Your task to perform on an android device: Do I have any events this weekend? Image 0: 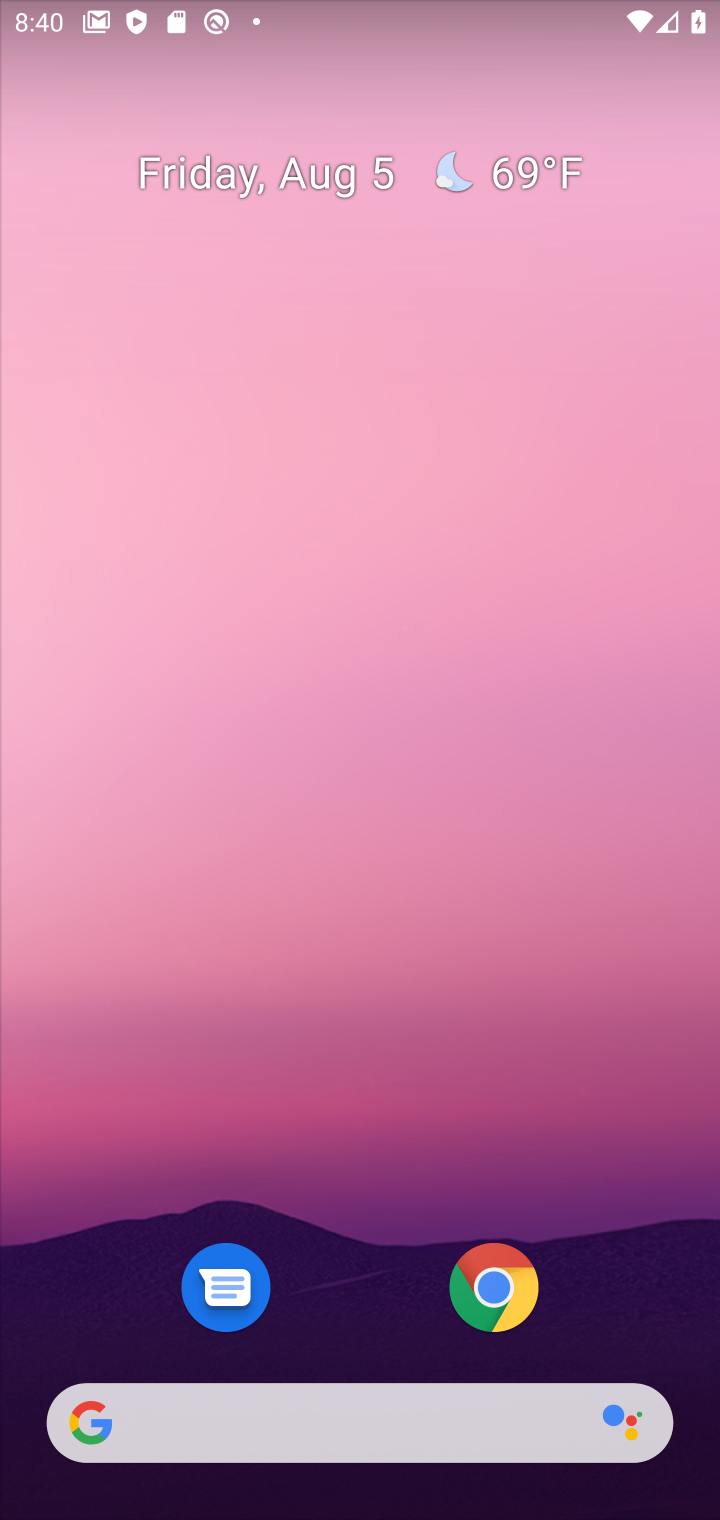
Step 0: drag from (353, 1307) to (306, 128)
Your task to perform on an android device: Do I have any events this weekend? Image 1: 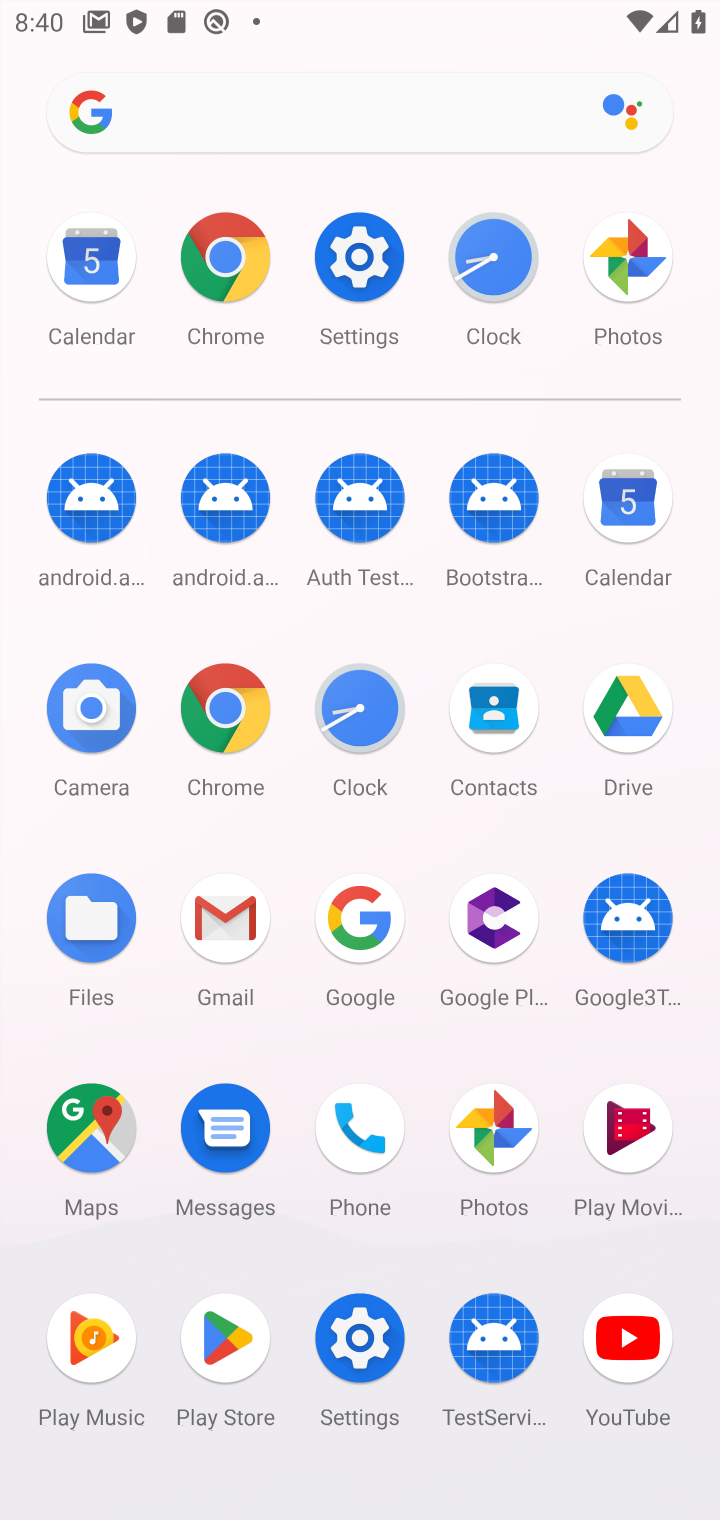
Step 1: click (614, 530)
Your task to perform on an android device: Do I have any events this weekend? Image 2: 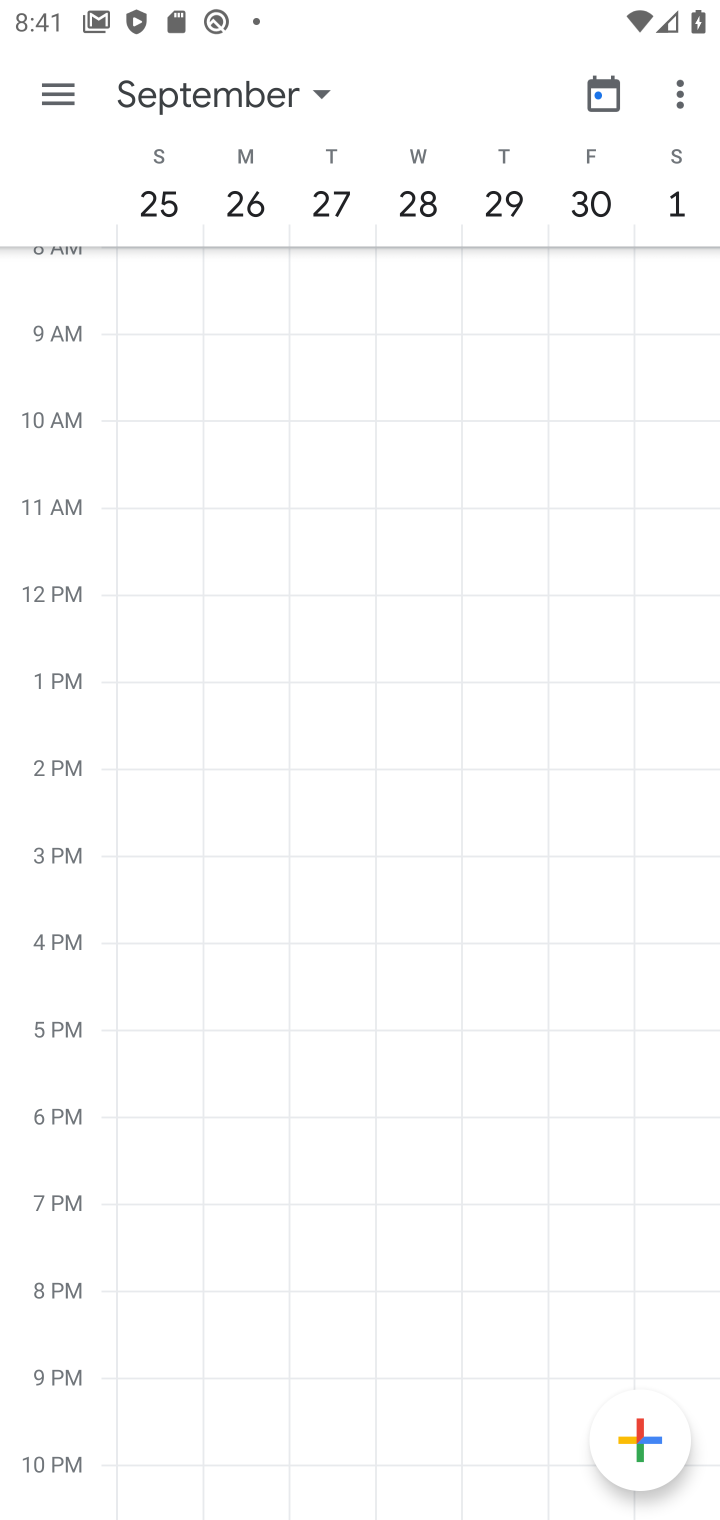
Step 2: click (311, 96)
Your task to perform on an android device: Do I have any events this weekend? Image 3: 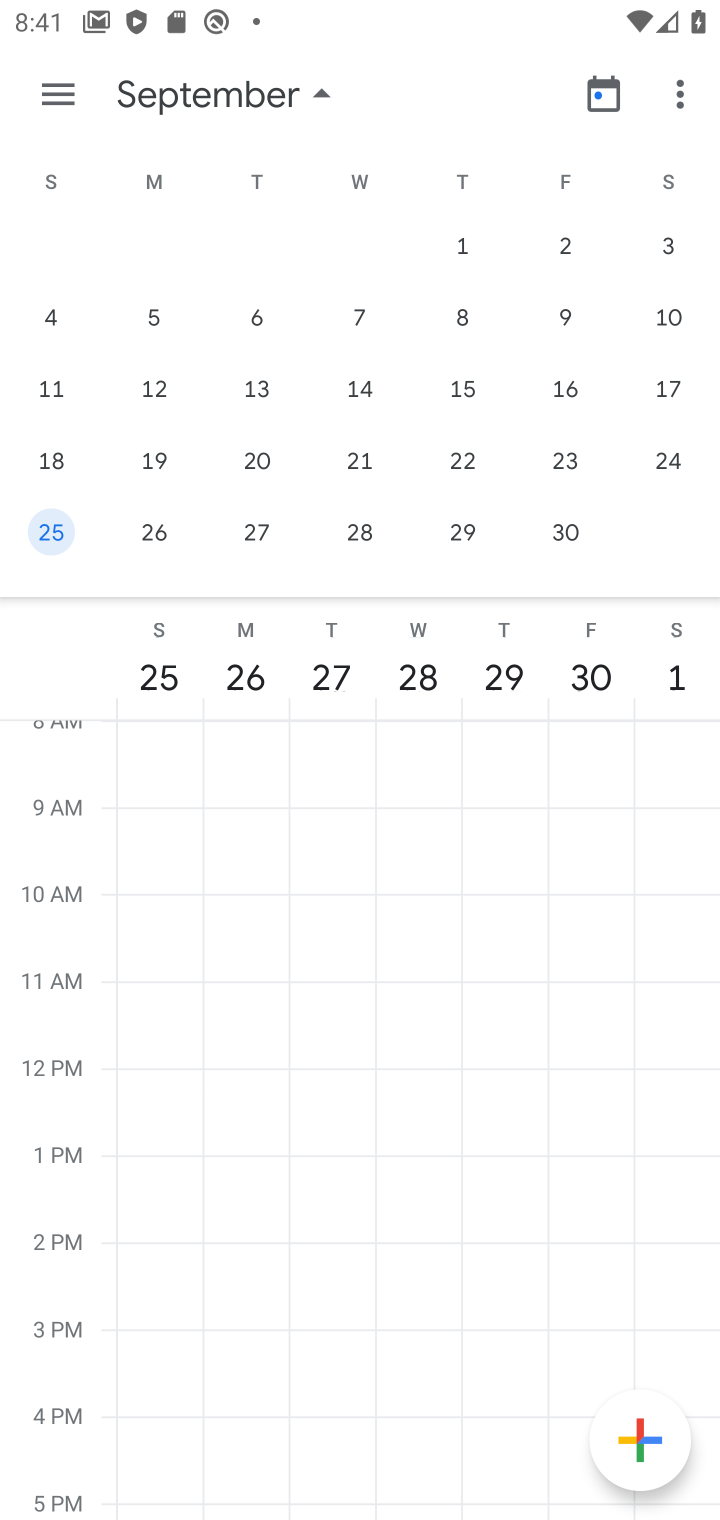
Step 3: drag from (52, 385) to (464, 385)
Your task to perform on an android device: Do I have any events this weekend? Image 4: 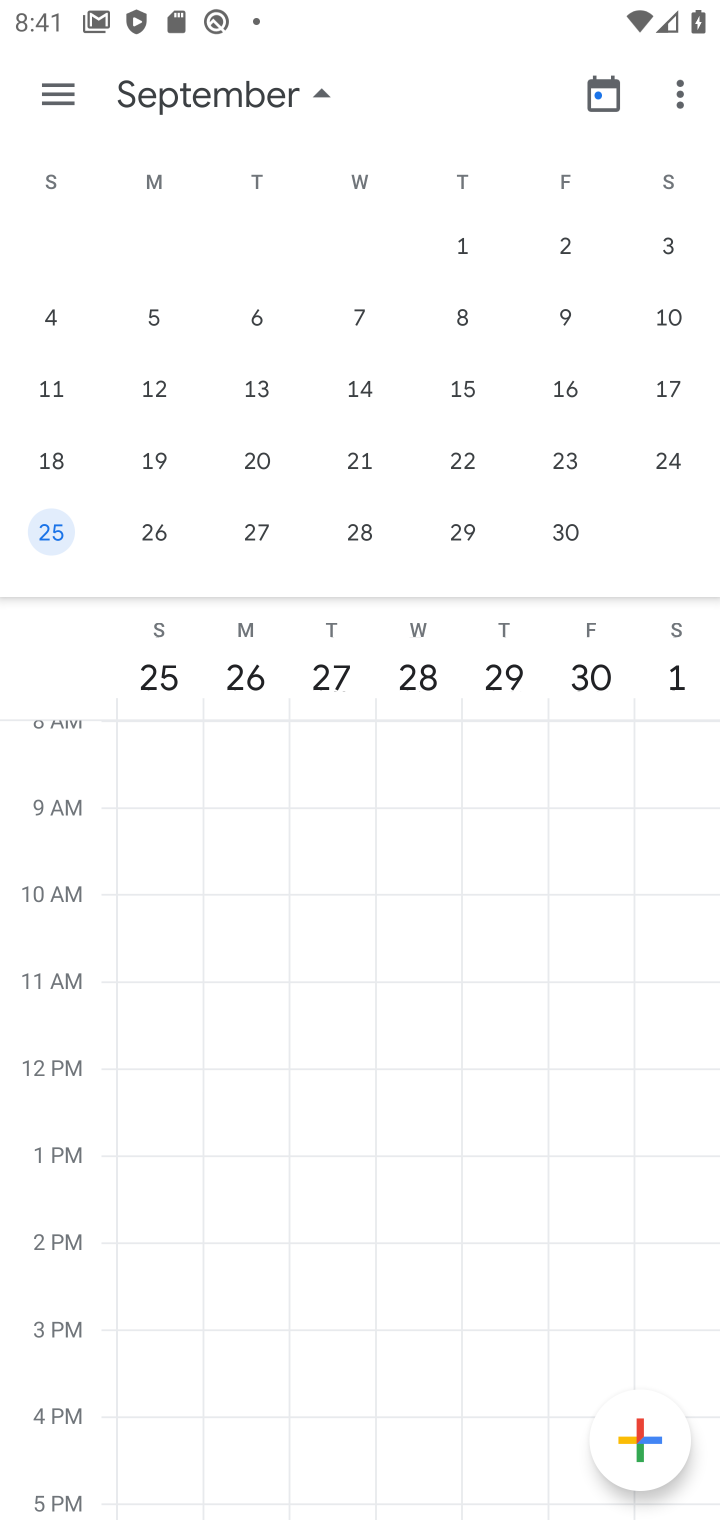
Step 4: drag from (52, 377) to (573, 347)
Your task to perform on an android device: Do I have any events this weekend? Image 5: 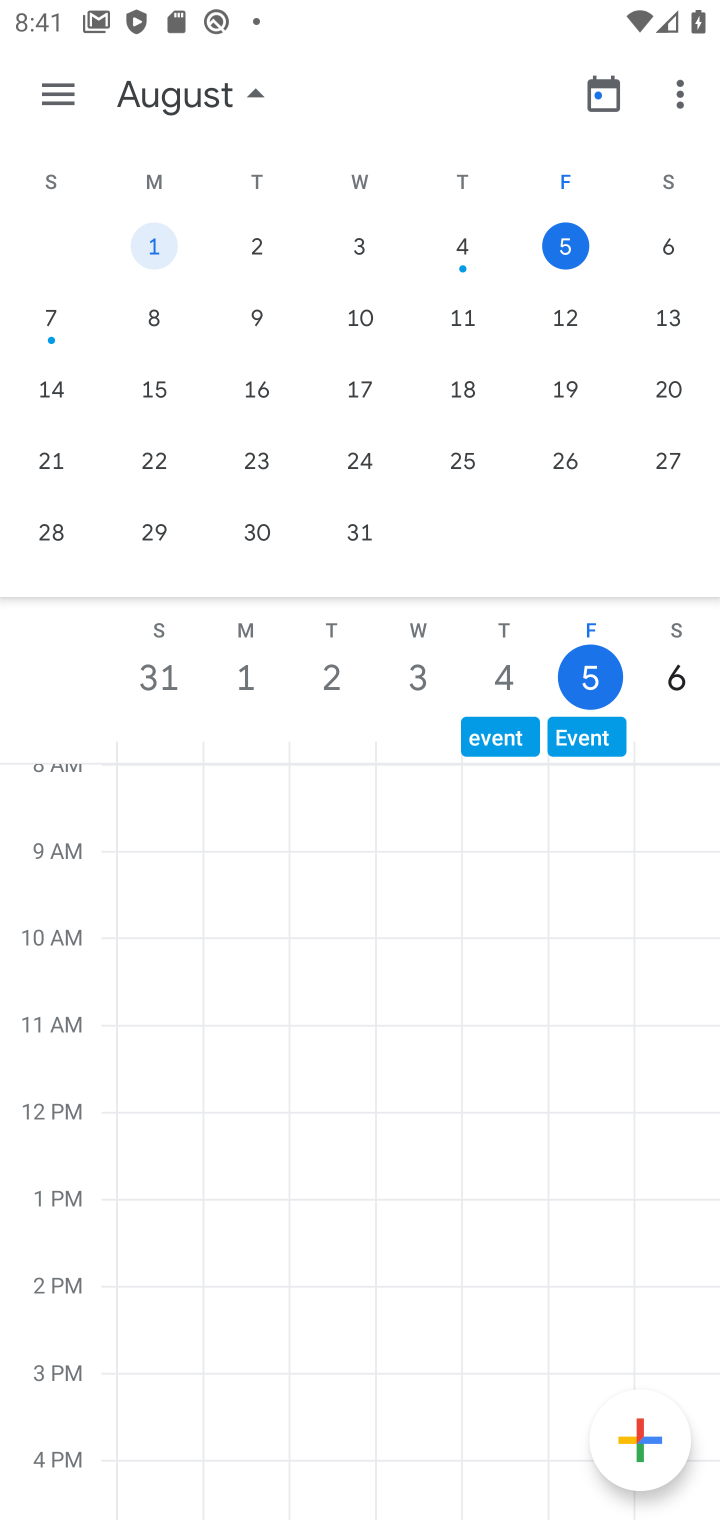
Step 5: click (41, 309)
Your task to perform on an android device: Do I have any events this weekend? Image 6: 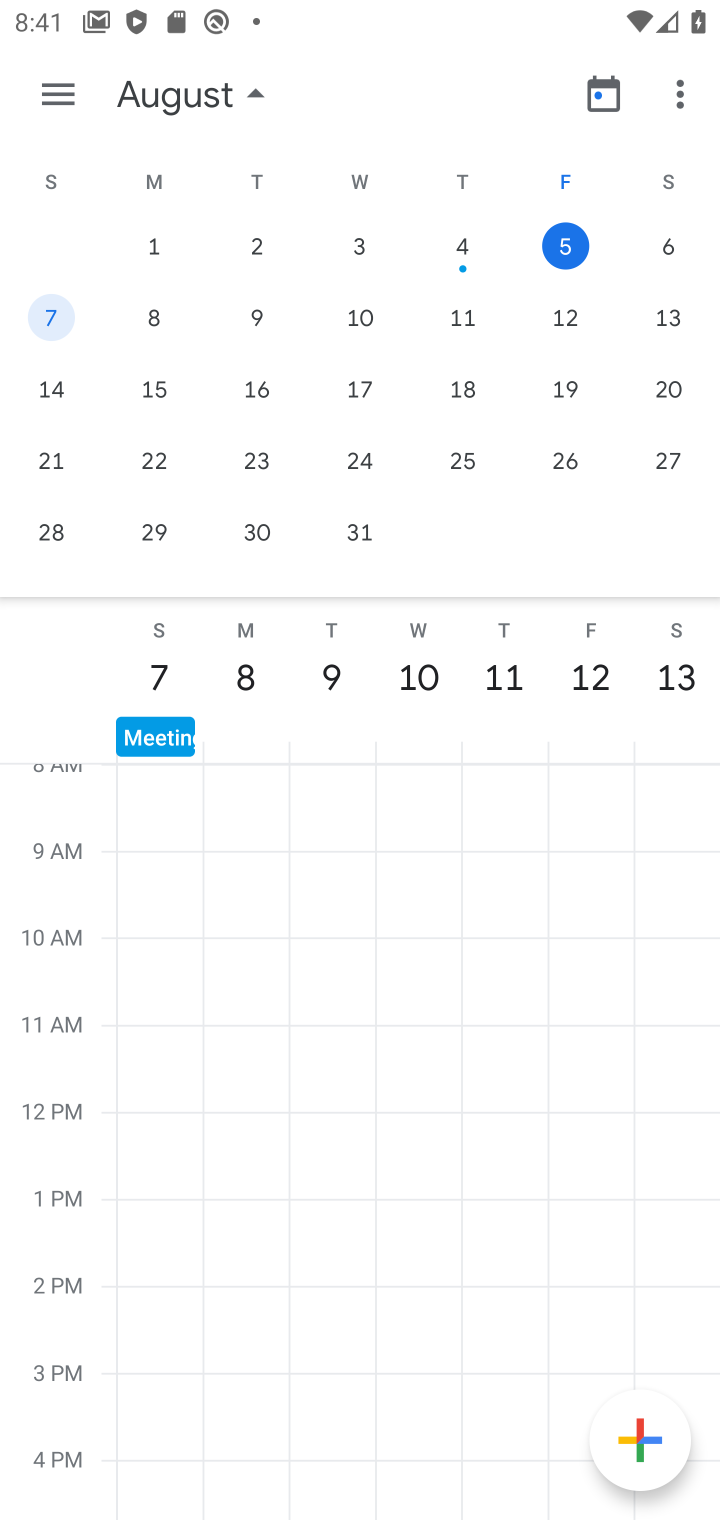
Step 6: task complete